Your task to perform on an android device: turn off notifications settings in the gmail app Image 0: 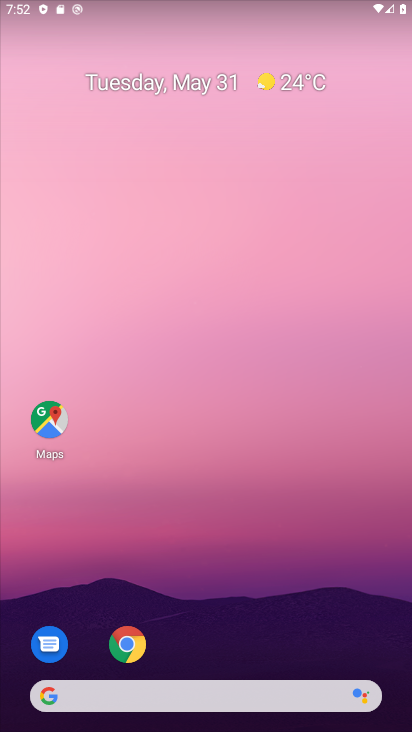
Step 0: drag from (249, 606) to (241, 334)
Your task to perform on an android device: turn off notifications settings in the gmail app Image 1: 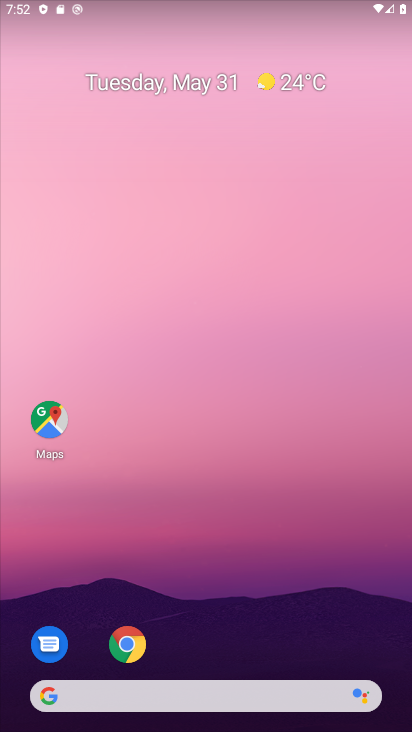
Step 1: drag from (237, 598) to (249, 193)
Your task to perform on an android device: turn off notifications settings in the gmail app Image 2: 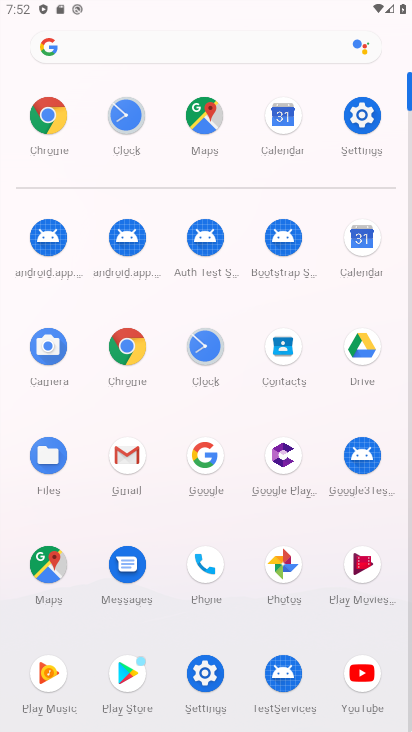
Step 2: click (137, 455)
Your task to perform on an android device: turn off notifications settings in the gmail app Image 3: 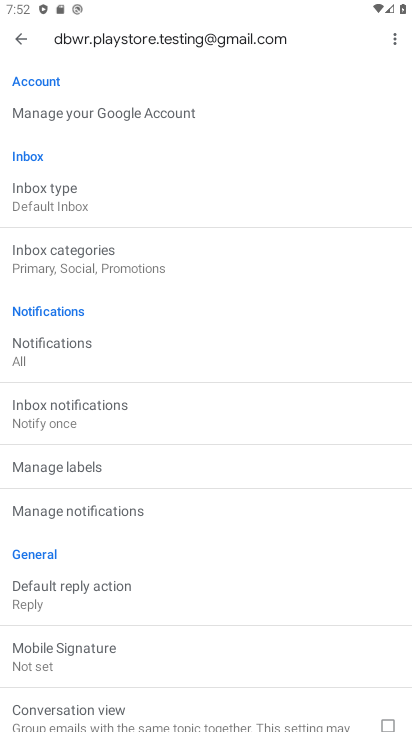
Step 3: click (153, 341)
Your task to perform on an android device: turn off notifications settings in the gmail app Image 4: 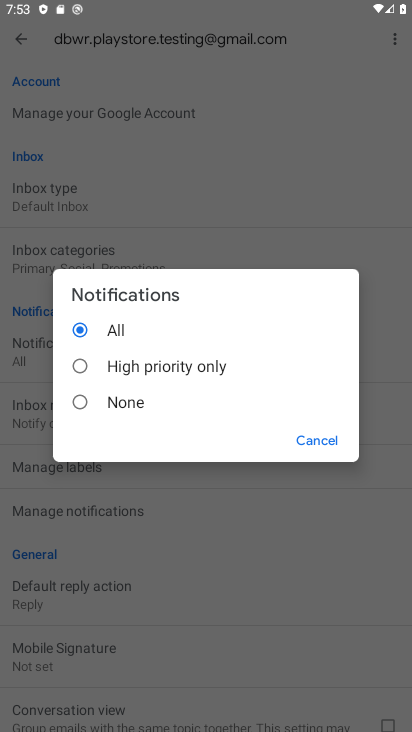
Step 4: click (125, 397)
Your task to perform on an android device: turn off notifications settings in the gmail app Image 5: 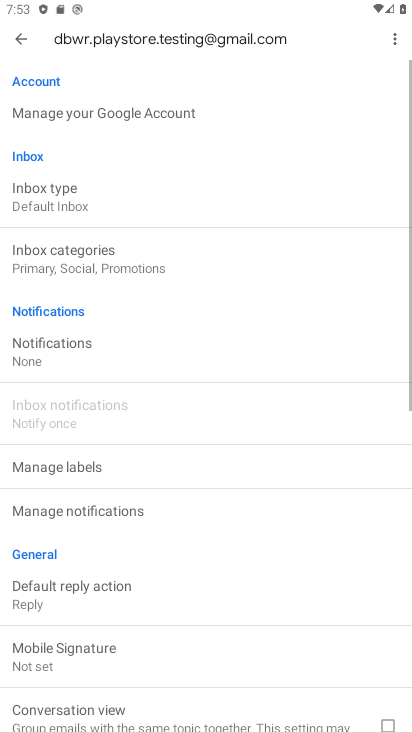
Step 5: task complete